Your task to perform on an android device: choose inbox layout in the gmail app Image 0: 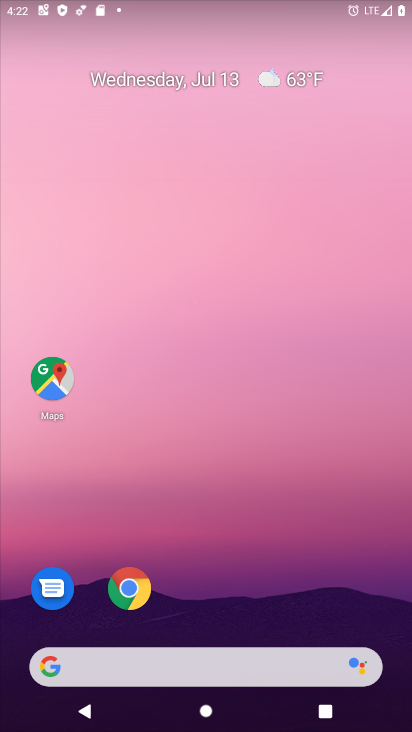
Step 0: drag from (191, 673) to (243, 175)
Your task to perform on an android device: choose inbox layout in the gmail app Image 1: 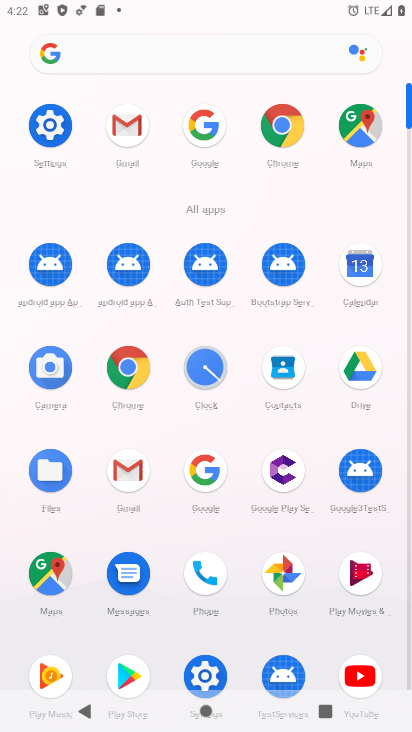
Step 1: click (127, 126)
Your task to perform on an android device: choose inbox layout in the gmail app Image 2: 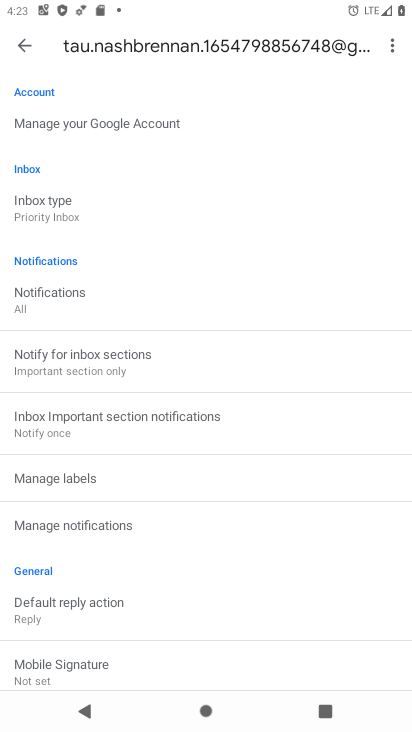
Step 2: click (59, 209)
Your task to perform on an android device: choose inbox layout in the gmail app Image 3: 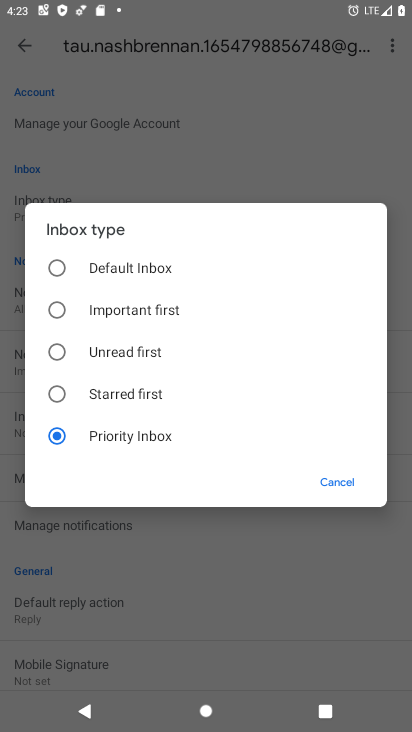
Step 3: click (56, 390)
Your task to perform on an android device: choose inbox layout in the gmail app Image 4: 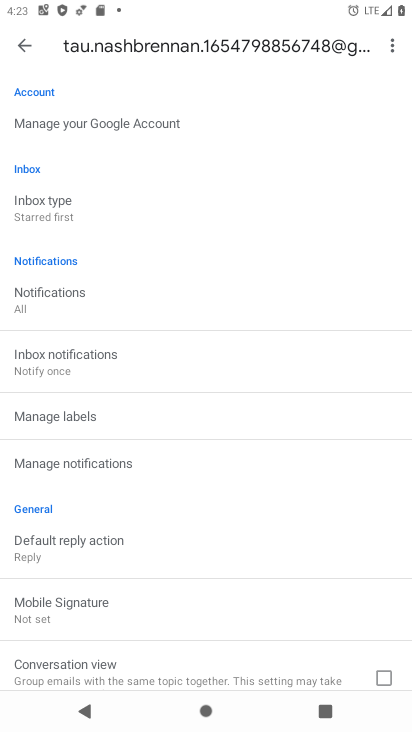
Step 4: task complete